Your task to perform on an android device: see tabs open on other devices in the chrome app Image 0: 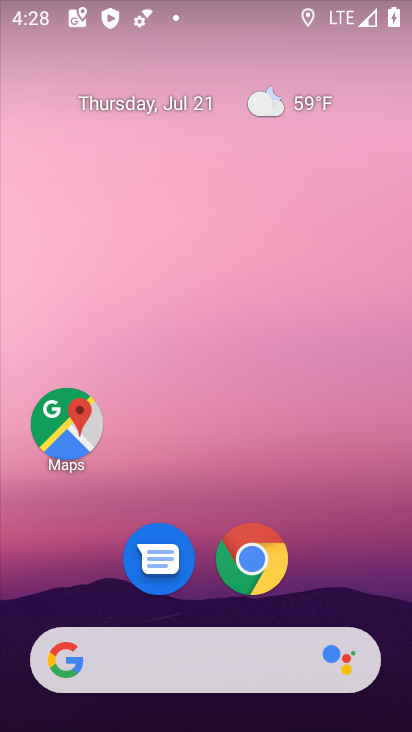
Step 0: click (251, 546)
Your task to perform on an android device: see tabs open on other devices in the chrome app Image 1: 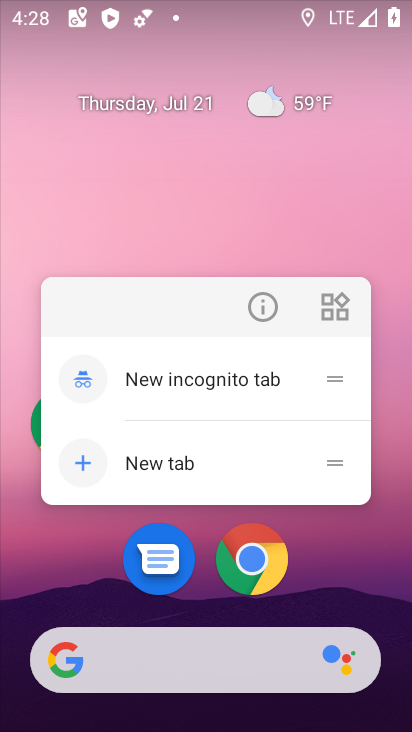
Step 1: click (249, 565)
Your task to perform on an android device: see tabs open on other devices in the chrome app Image 2: 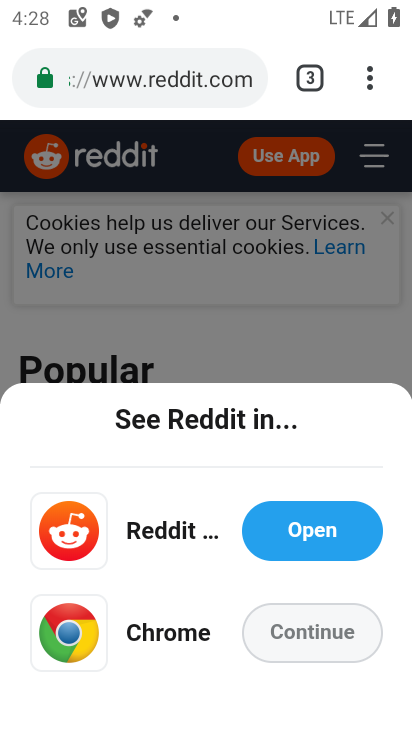
Step 2: task complete